Your task to perform on an android device: Open settings Image 0: 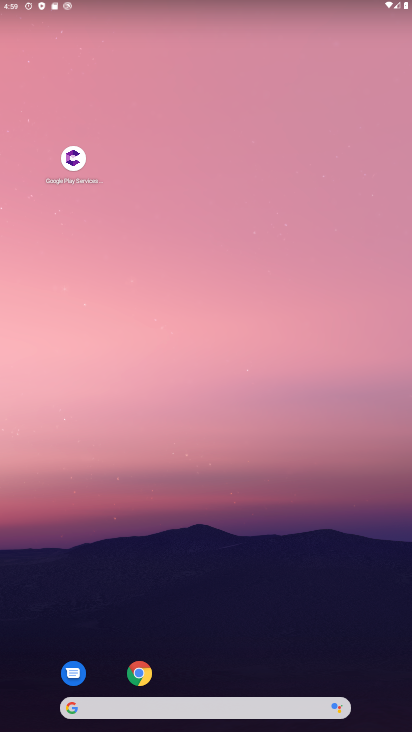
Step 0: drag from (312, 710) to (358, 0)
Your task to perform on an android device: Open settings Image 1: 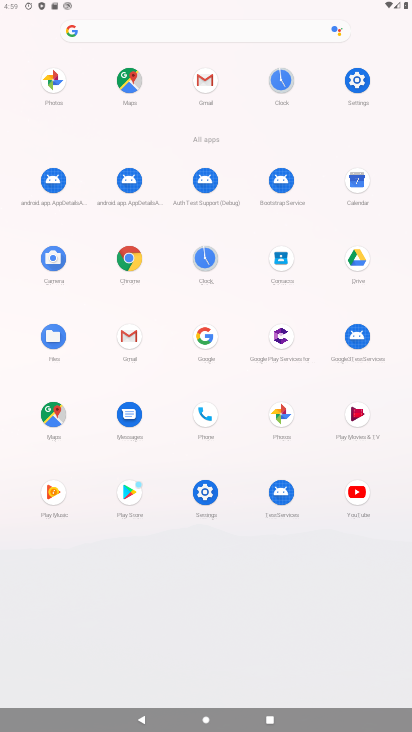
Step 1: click (360, 73)
Your task to perform on an android device: Open settings Image 2: 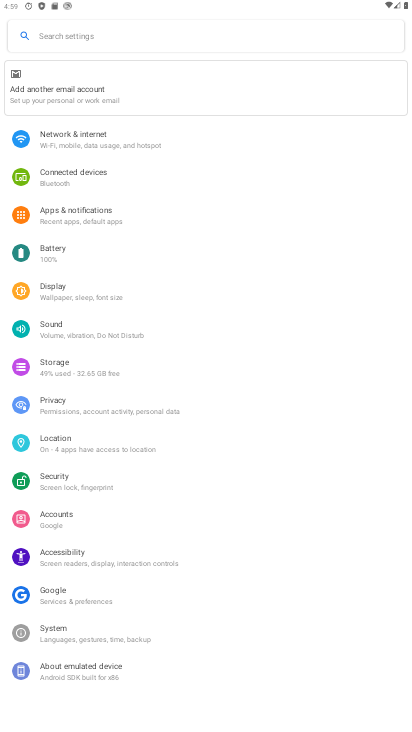
Step 2: task complete